Your task to perform on an android device: turn on the 24-hour format for clock Image 0: 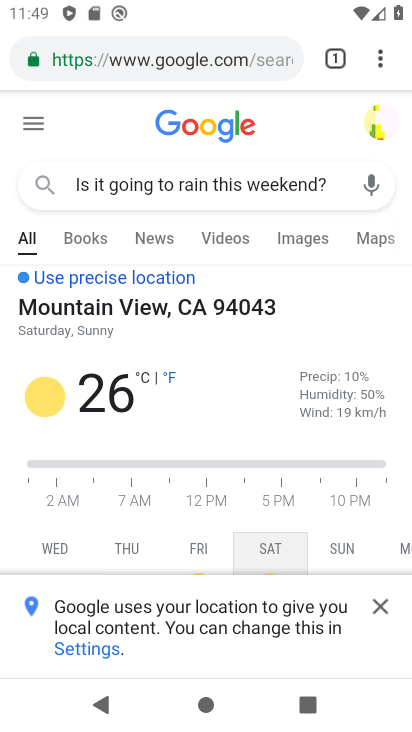
Step 0: press home button
Your task to perform on an android device: turn on the 24-hour format for clock Image 1: 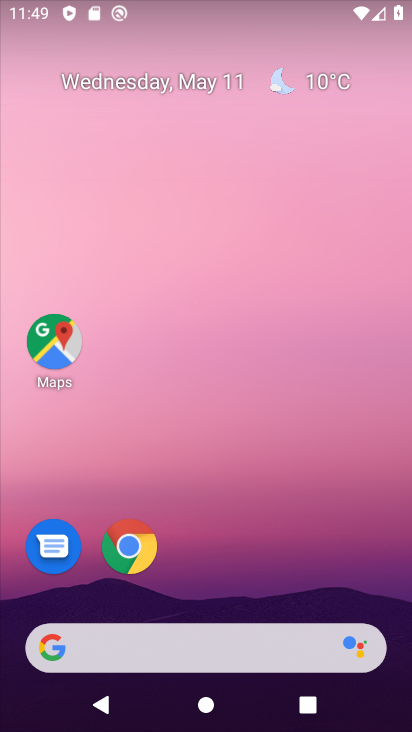
Step 1: drag from (245, 622) to (251, 285)
Your task to perform on an android device: turn on the 24-hour format for clock Image 2: 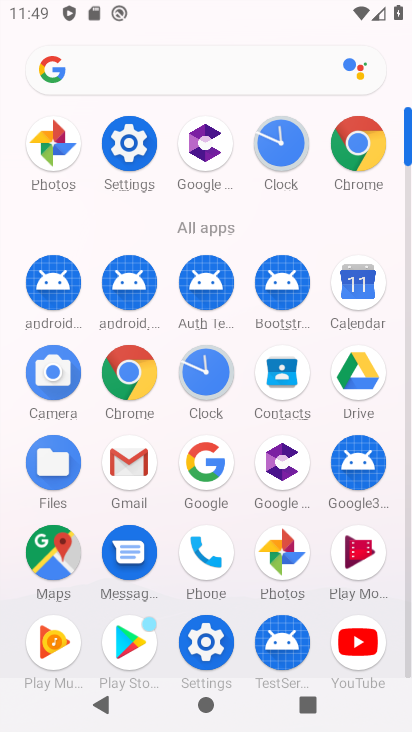
Step 2: click (219, 374)
Your task to perform on an android device: turn on the 24-hour format for clock Image 3: 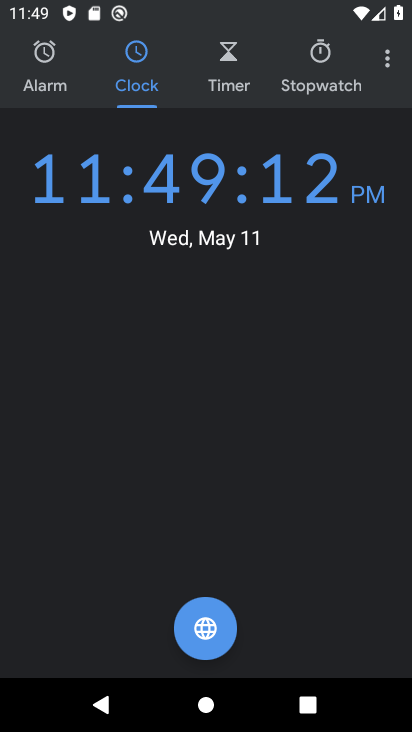
Step 3: click (384, 60)
Your task to perform on an android device: turn on the 24-hour format for clock Image 4: 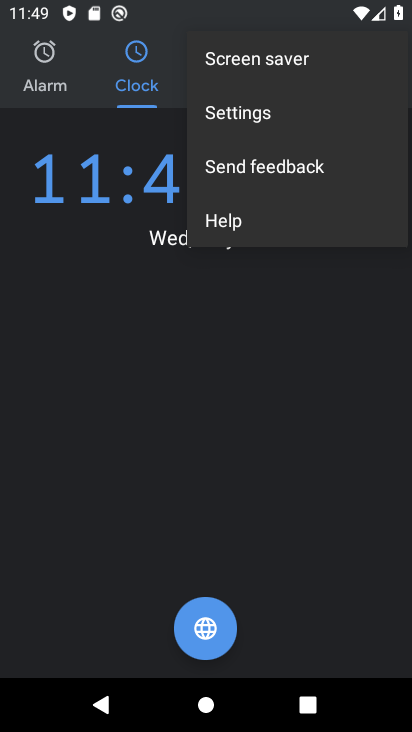
Step 4: click (323, 114)
Your task to perform on an android device: turn on the 24-hour format for clock Image 5: 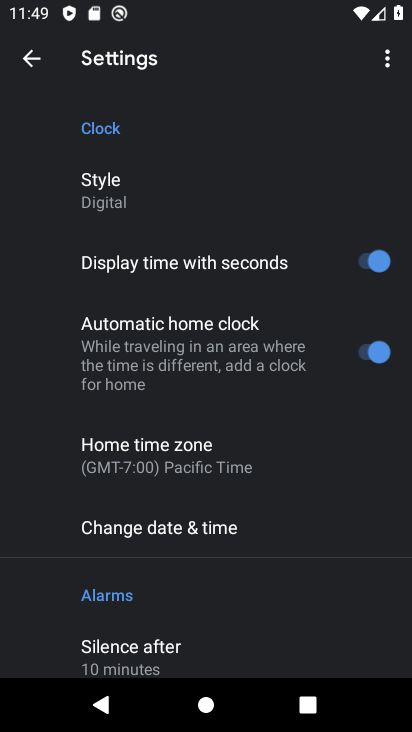
Step 5: click (161, 528)
Your task to perform on an android device: turn on the 24-hour format for clock Image 6: 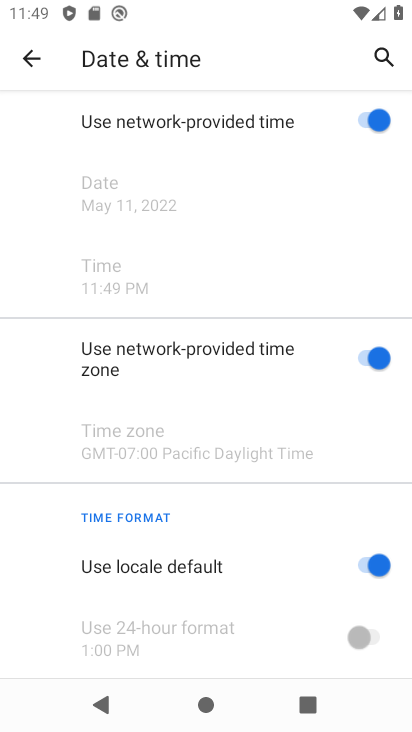
Step 6: drag from (181, 558) to (249, 216)
Your task to perform on an android device: turn on the 24-hour format for clock Image 7: 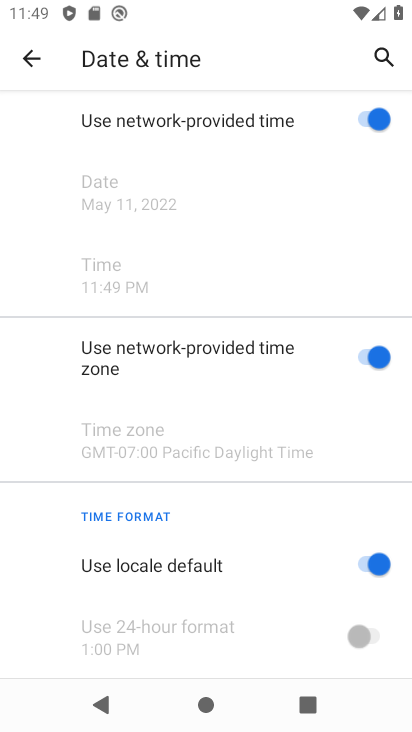
Step 7: click (367, 566)
Your task to perform on an android device: turn on the 24-hour format for clock Image 8: 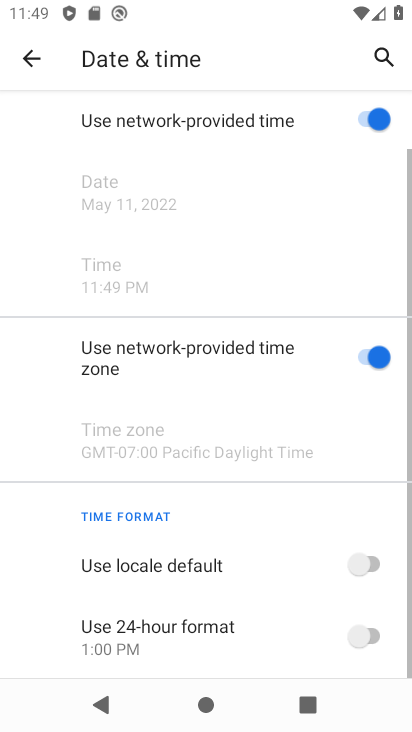
Step 8: click (373, 634)
Your task to perform on an android device: turn on the 24-hour format for clock Image 9: 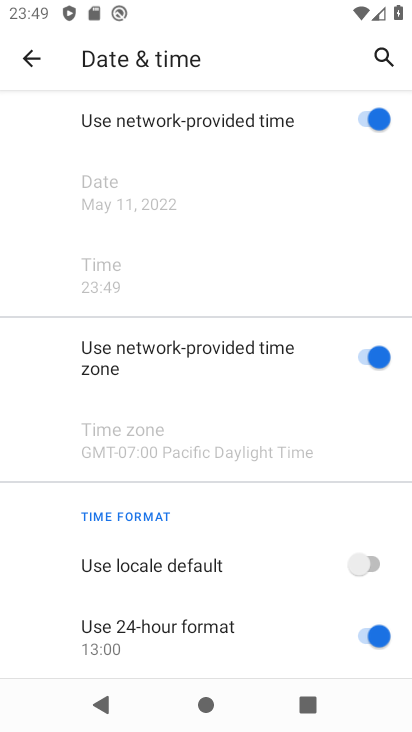
Step 9: task complete